Your task to perform on an android device: Open Google Chrome Image 0: 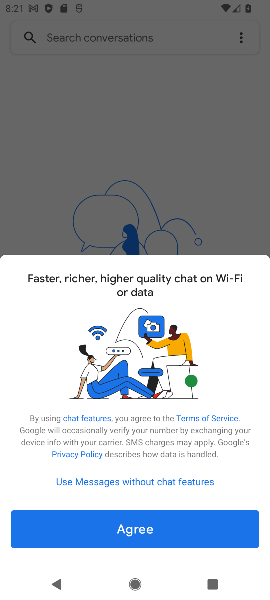
Step 0: press home button
Your task to perform on an android device: Open Google Chrome Image 1: 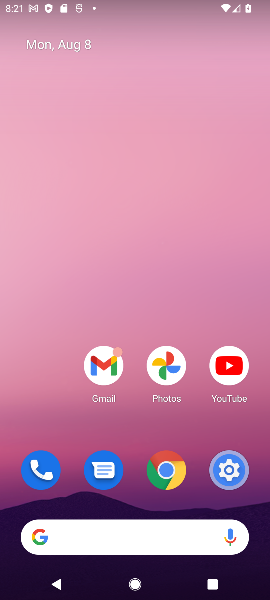
Step 1: click (157, 476)
Your task to perform on an android device: Open Google Chrome Image 2: 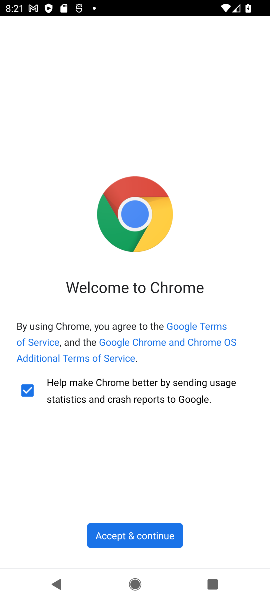
Step 2: click (148, 534)
Your task to perform on an android device: Open Google Chrome Image 3: 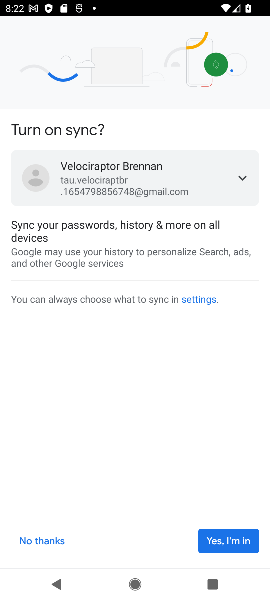
Step 3: click (220, 544)
Your task to perform on an android device: Open Google Chrome Image 4: 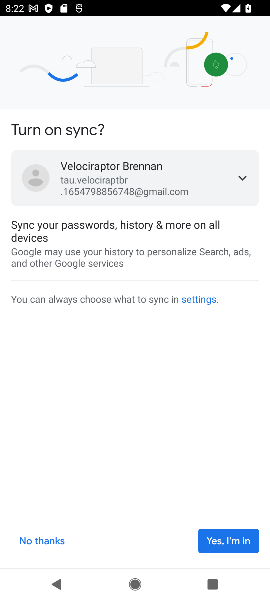
Step 4: click (220, 544)
Your task to perform on an android device: Open Google Chrome Image 5: 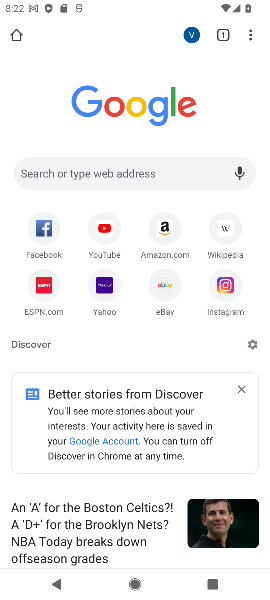
Step 5: task complete